Your task to perform on an android device: Open location settings Image 0: 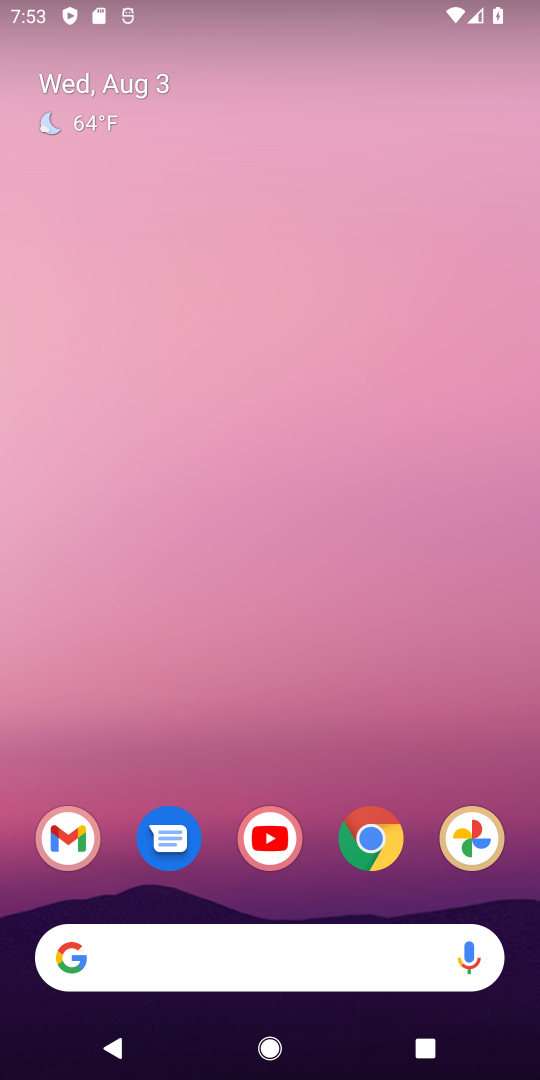
Step 0: drag from (275, 861) to (260, 0)
Your task to perform on an android device: Open location settings Image 1: 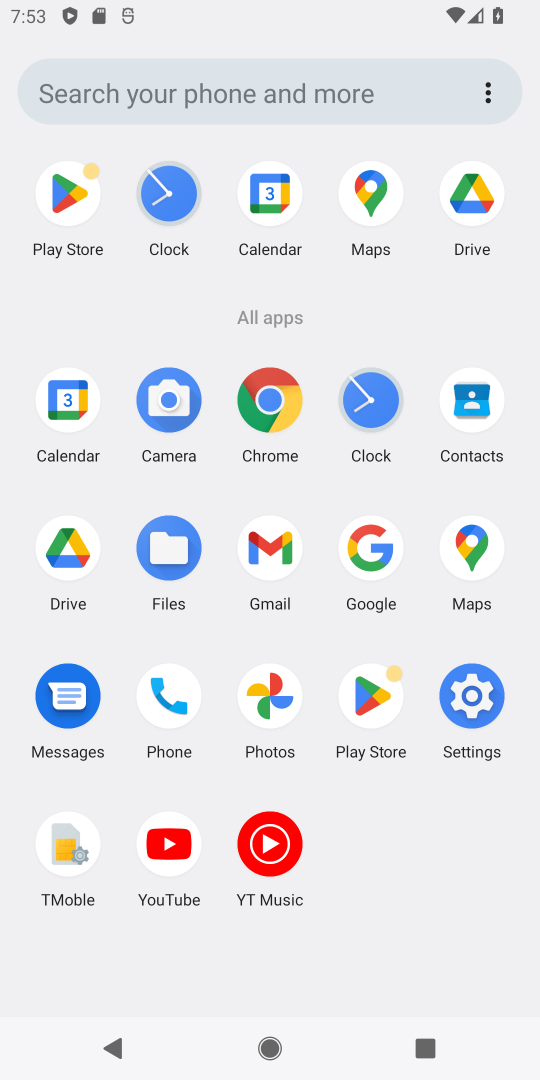
Step 1: click (480, 694)
Your task to perform on an android device: Open location settings Image 2: 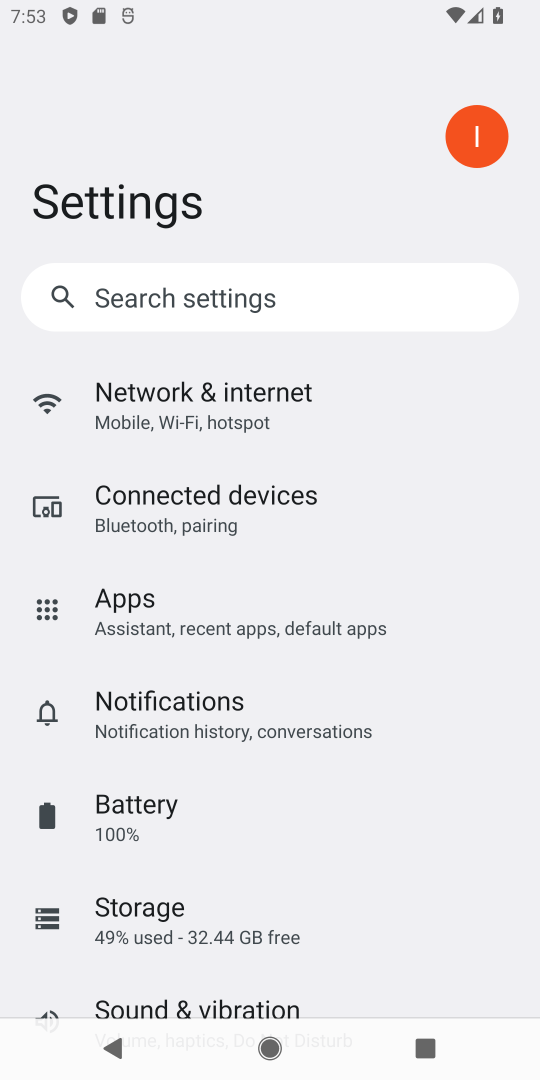
Step 2: drag from (161, 933) to (164, 527)
Your task to perform on an android device: Open location settings Image 3: 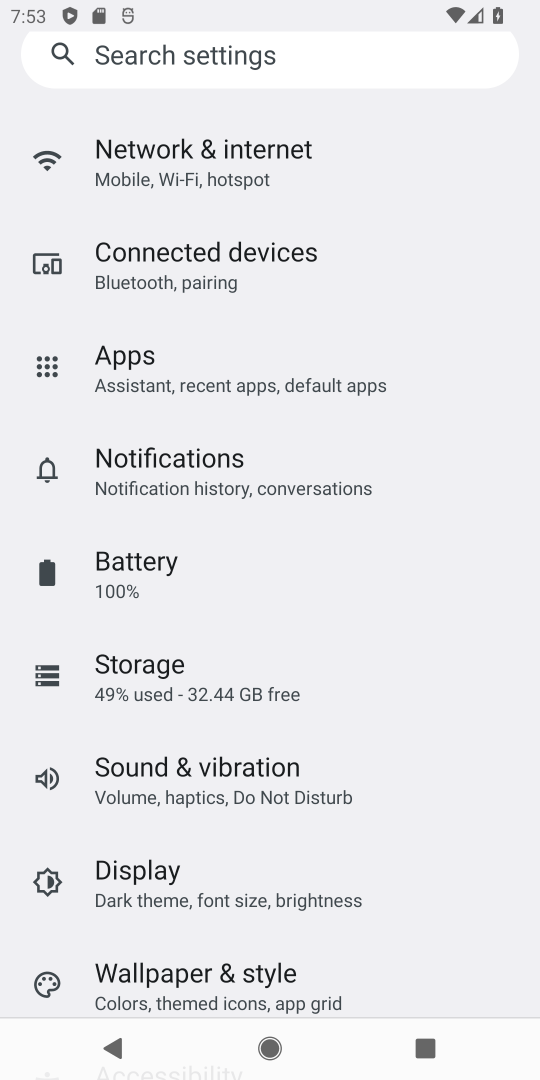
Step 3: drag from (220, 891) to (219, 310)
Your task to perform on an android device: Open location settings Image 4: 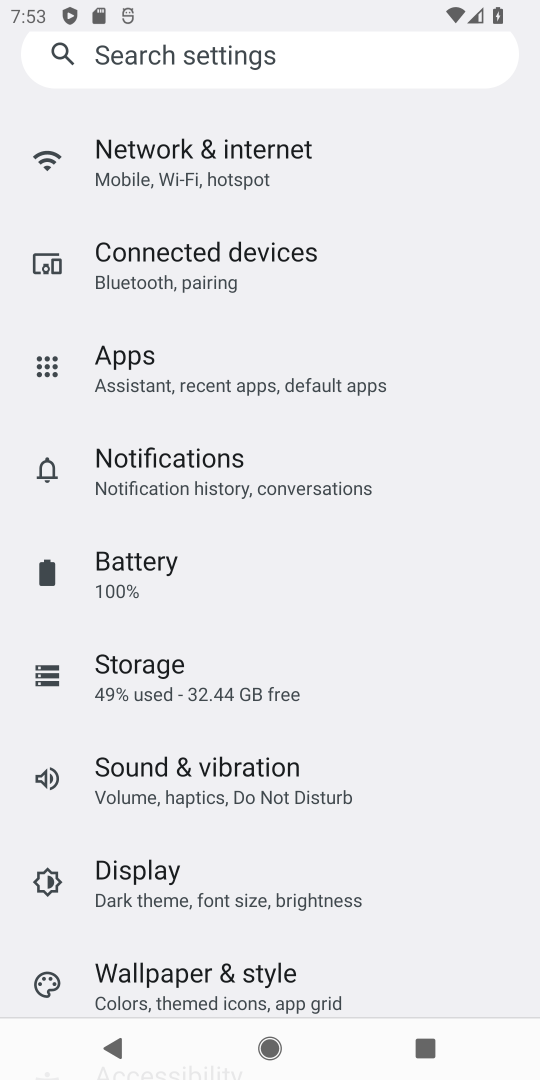
Step 4: drag from (174, 888) to (182, 519)
Your task to perform on an android device: Open location settings Image 5: 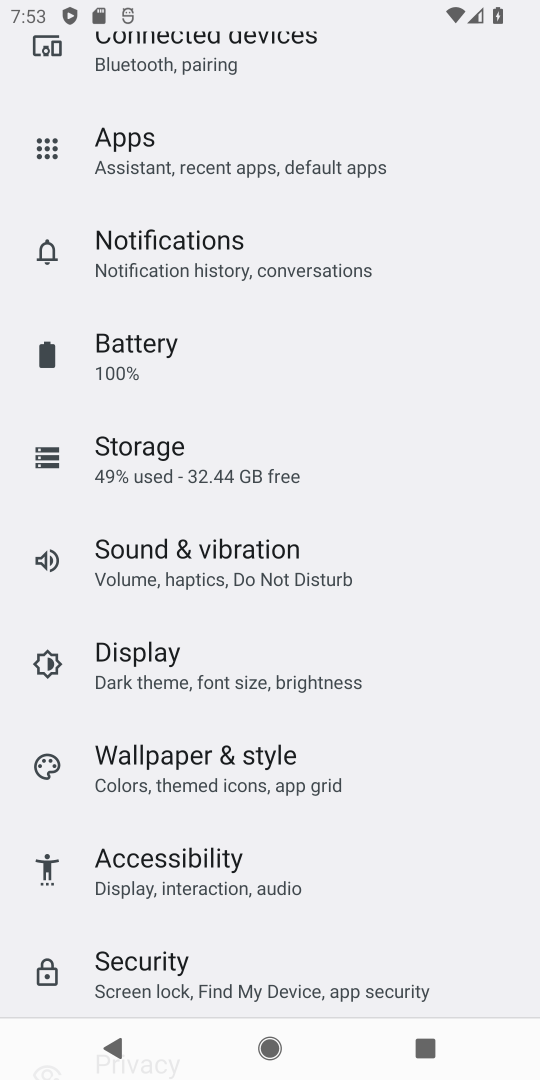
Step 5: drag from (184, 881) to (228, 557)
Your task to perform on an android device: Open location settings Image 6: 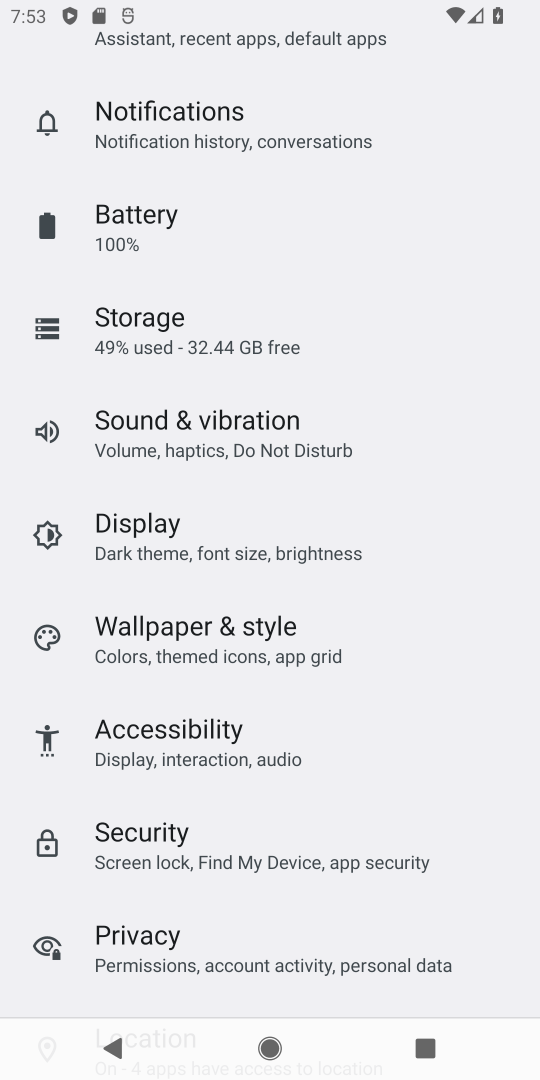
Step 6: drag from (185, 889) to (216, 478)
Your task to perform on an android device: Open location settings Image 7: 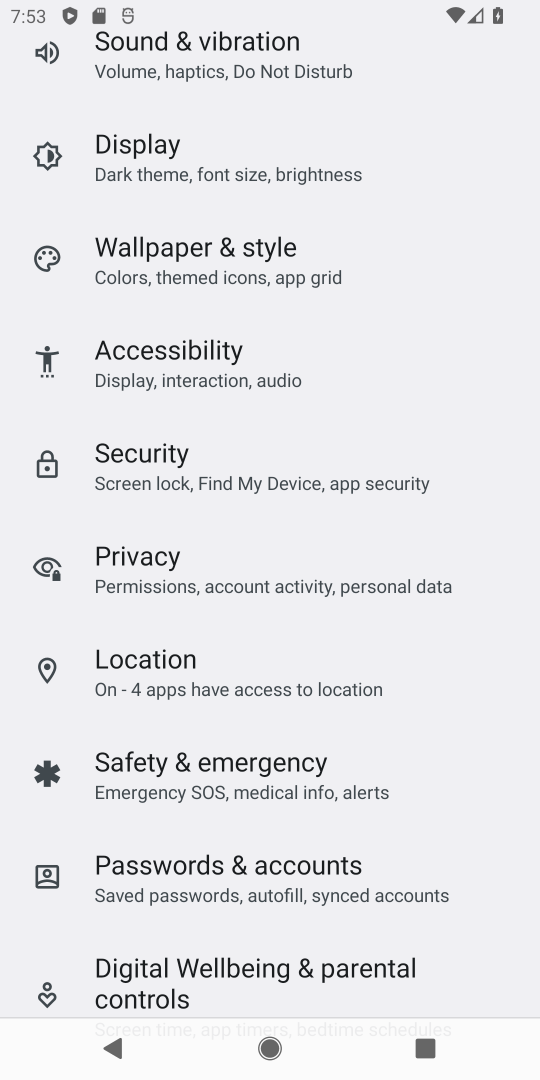
Step 7: click (197, 663)
Your task to perform on an android device: Open location settings Image 8: 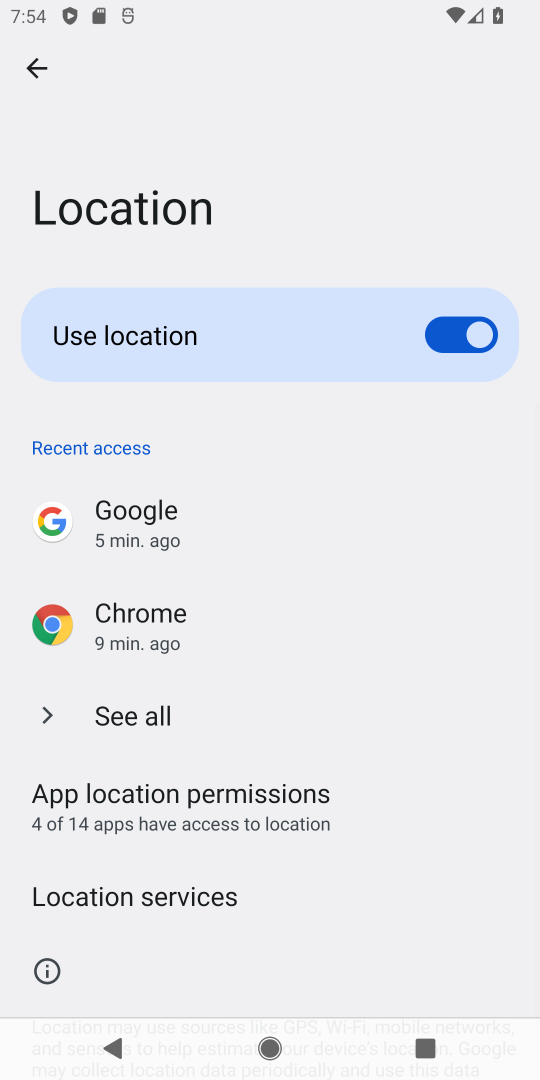
Step 8: task complete